Your task to perform on an android device: Clear the shopping cart on bestbuy.com. Search for duracell triple a on bestbuy.com, select the first entry, and add it to the cart. Image 0: 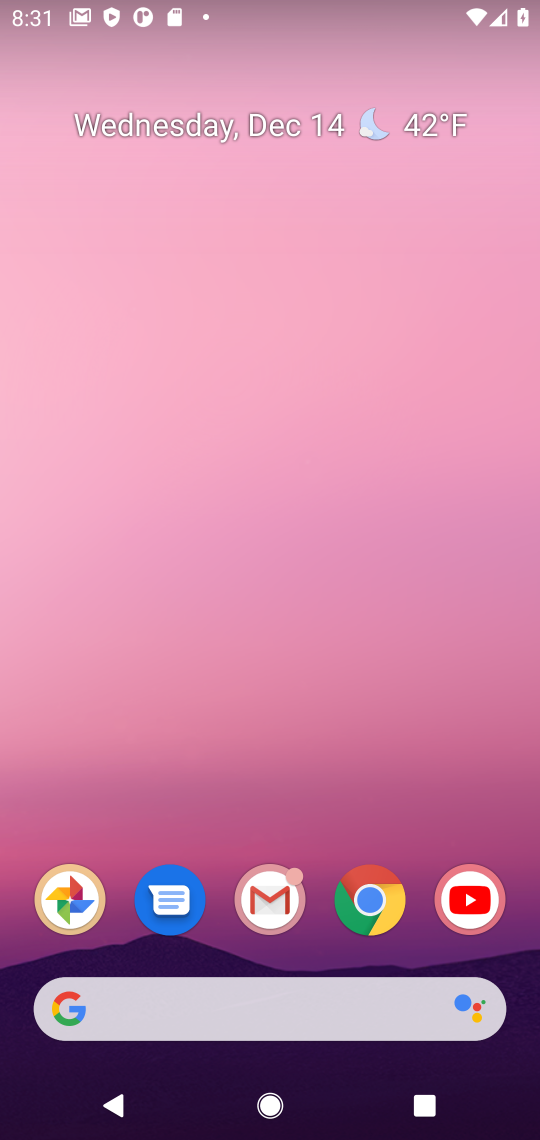
Step 0: click (364, 911)
Your task to perform on an android device: Clear the shopping cart on bestbuy.com. Search for duracell triple a on bestbuy.com, select the first entry, and add it to the cart. Image 1: 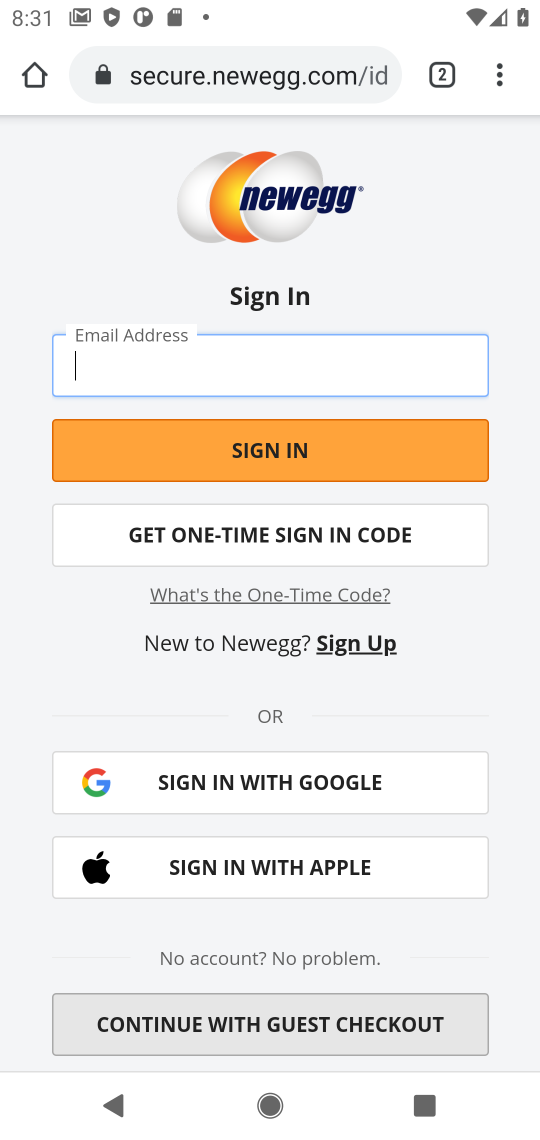
Step 1: click (269, 66)
Your task to perform on an android device: Clear the shopping cart on bestbuy.com. Search for duracell triple a on bestbuy.com, select the first entry, and add it to the cart. Image 2: 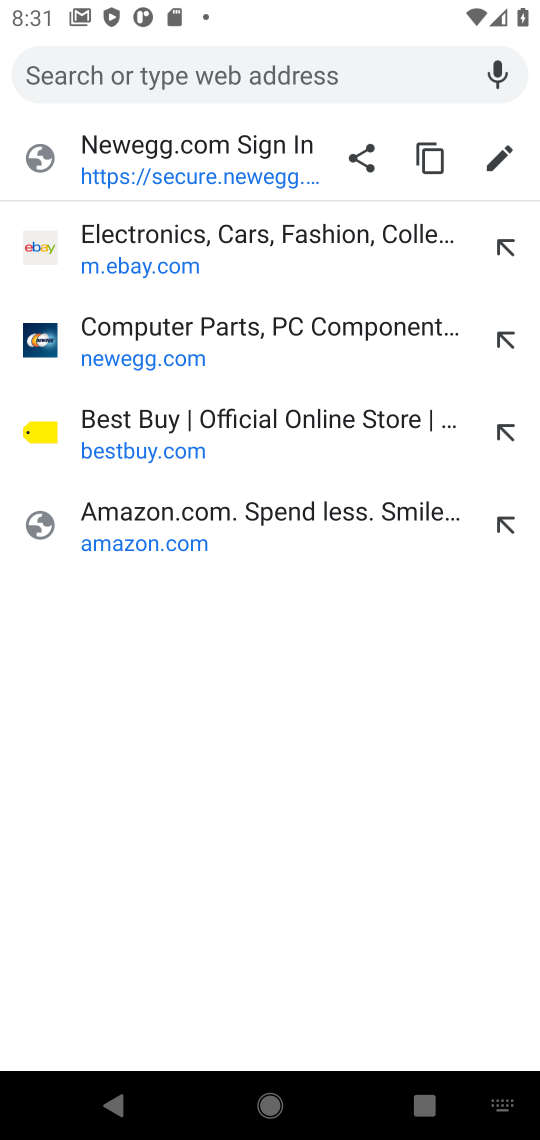
Step 2: click (102, 456)
Your task to perform on an android device: Clear the shopping cart on bestbuy.com. Search for duracell triple a on bestbuy.com, select the first entry, and add it to the cart. Image 3: 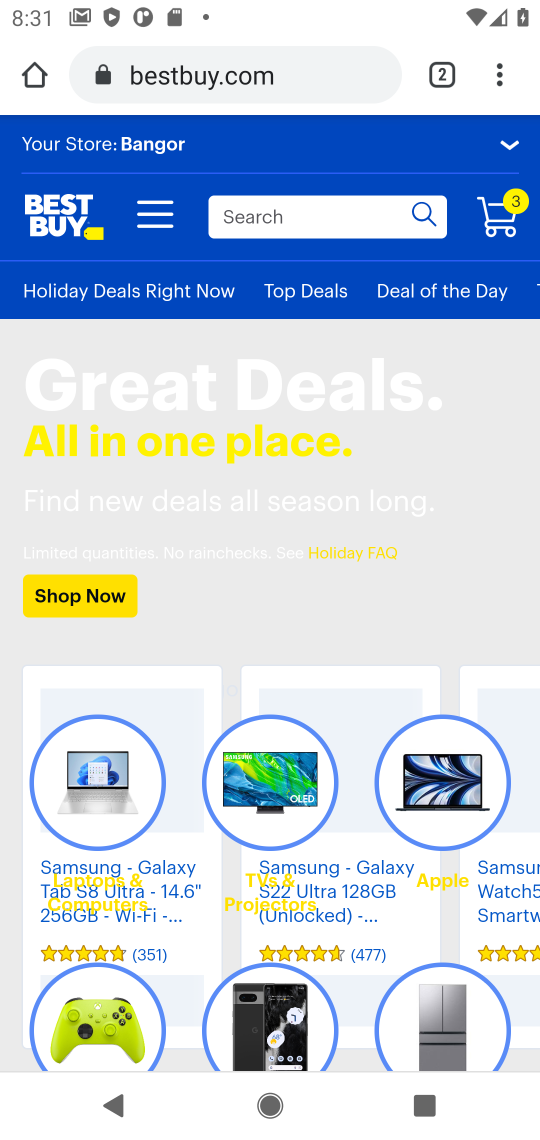
Step 3: click (499, 213)
Your task to perform on an android device: Clear the shopping cart on bestbuy.com. Search for duracell triple a on bestbuy.com, select the first entry, and add it to the cart. Image 4: 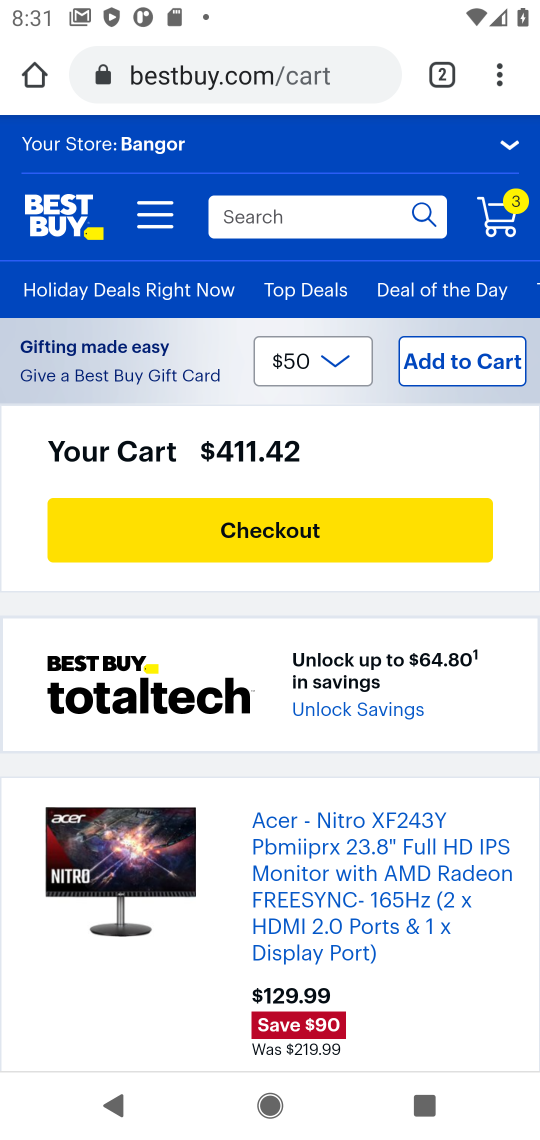
Step 4: drag from (342, 838) to (410, 277)
Your task to perform on an android device: Clear the shopping cart on bestbuy.com. Search for duracell triple a on bestbuy.com, select the first entry, and add it to the cart. Image 5: 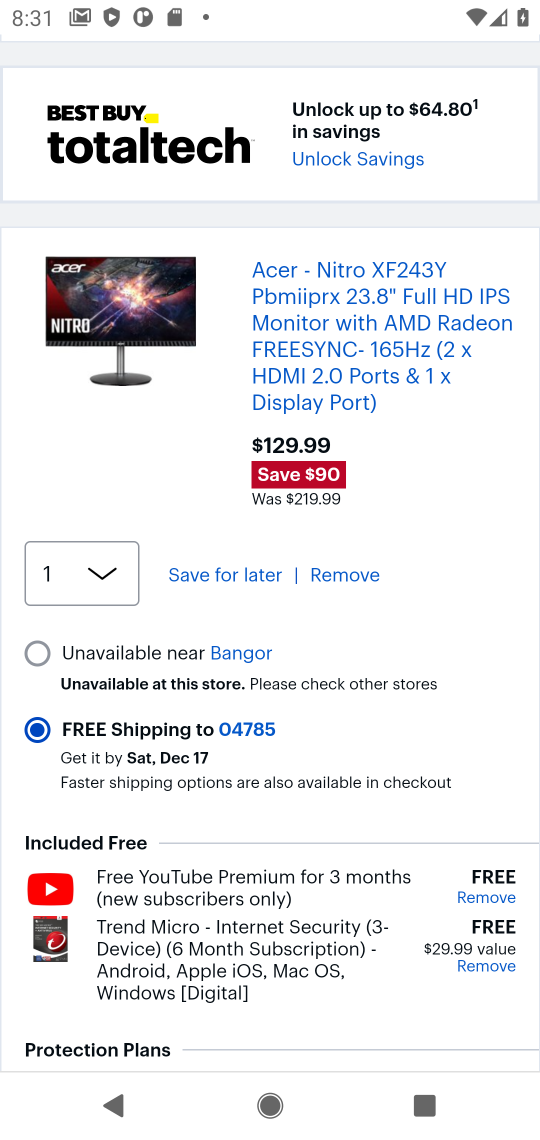
Step 5: drag from (348, 892) to (403, 516)
Your task to perform on an android device: Clear the shopping cart on bestbuy.com. Search for duracell triple a on bestbuy.com, select the first entry, and add it to the cart. Image 6: 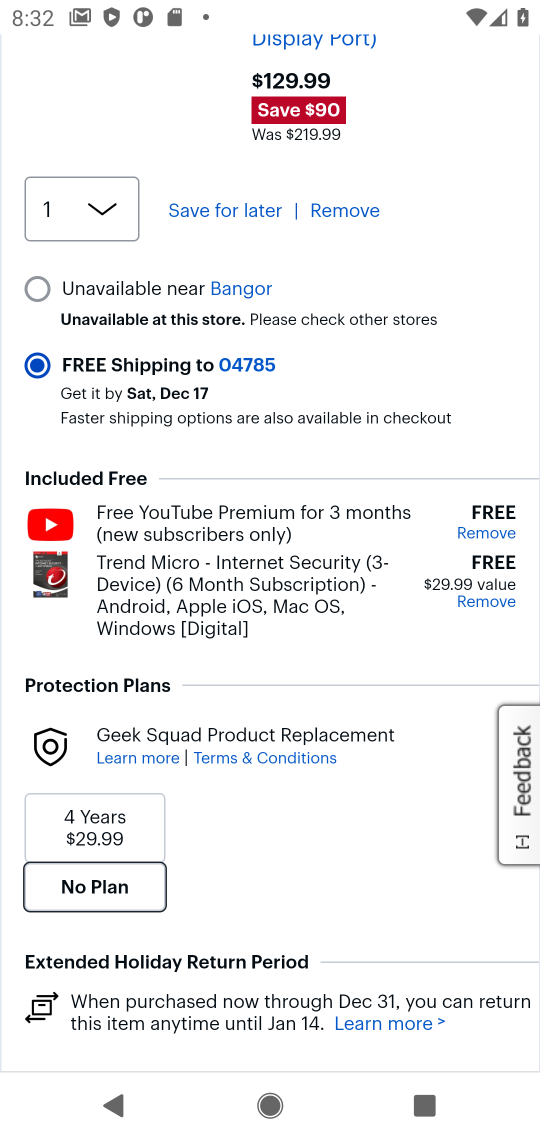
Step 6: drag from (332, 822) to (369, 445)
Your task to perform on an android device: Clear the shopping cart on bestbuy.com. Search for duracell triple a on bestbuy.com, select the first entry, and add it to the cart. Image 7: 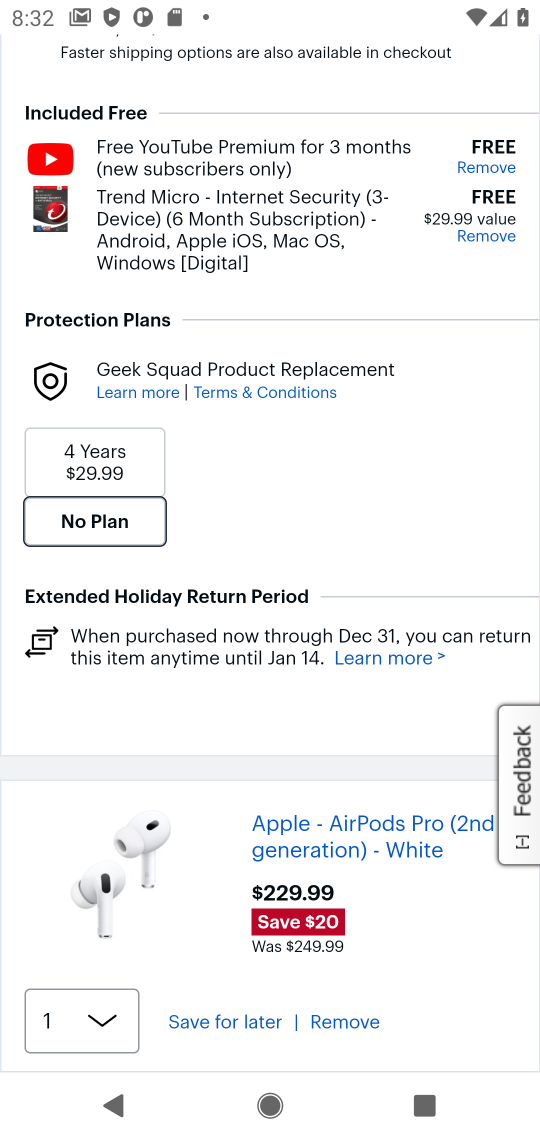
Step 7: click (111, 1023)
Your task to perform on an android device: Clear the shopping cart on bestbuy.com. Search for duracell triple a on bestbuy.com, select the first entry, and add it to the cart. Image 8: 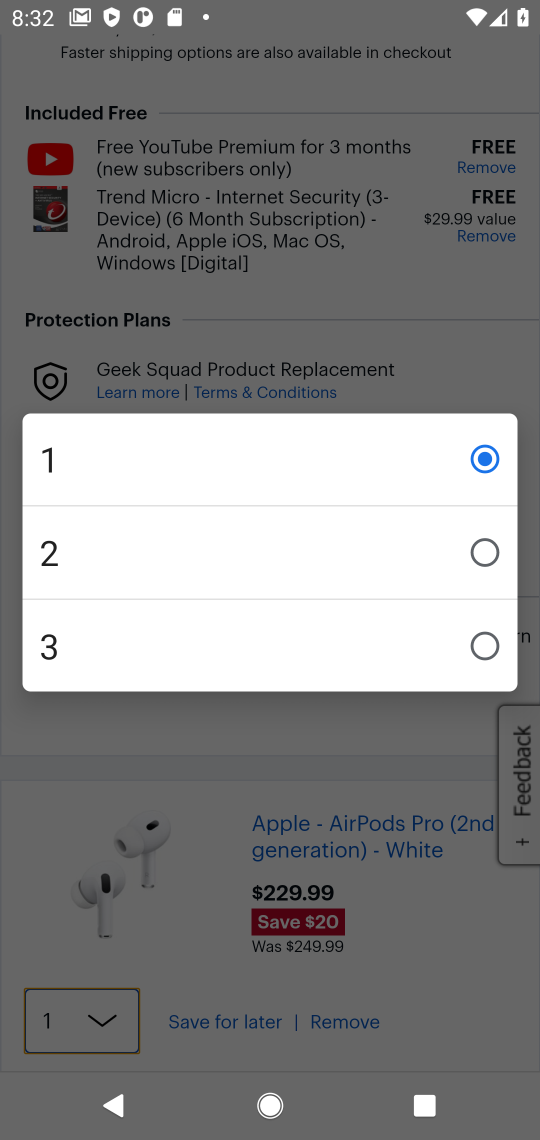
Step 8: click (359, 1025)
Your task to perform on an android device: Clear the shopping cart on bestbuy.com. Search for duracell triple a on bestbuy.com, select the first entry, and add it to the cart. Image 9: 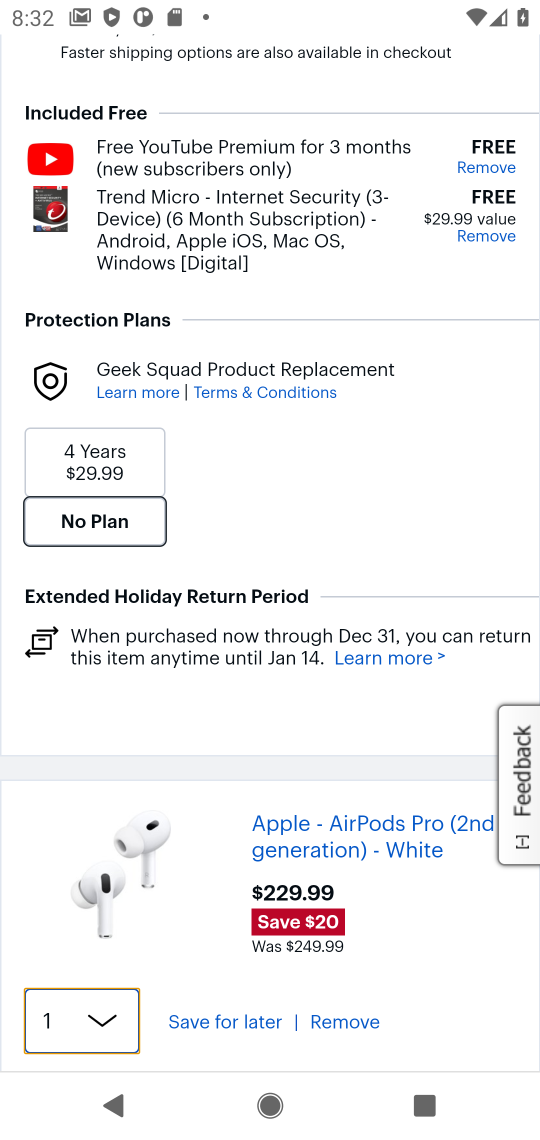
Step 9: click (356, 1028)
Your task to perform on an android device: Clear the shopping cart on bestbuy.com. Search for duracell triple a on bestbuy.com, select the first entry, and add it to the cart. Image 10: 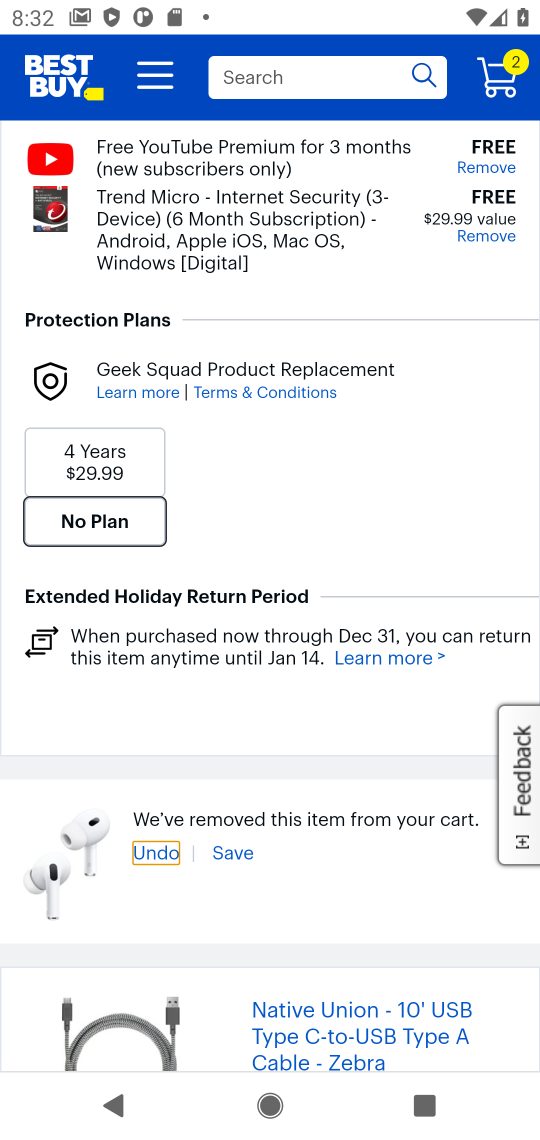
Step 10: drag from (306, 929) to (354, 370)
Your task to perform on an android device: Clear the shopping cart on bestbuy.com. Search for duracell triple a on bestbuy.com, select the first entry, and add it to the cart. Image 11: 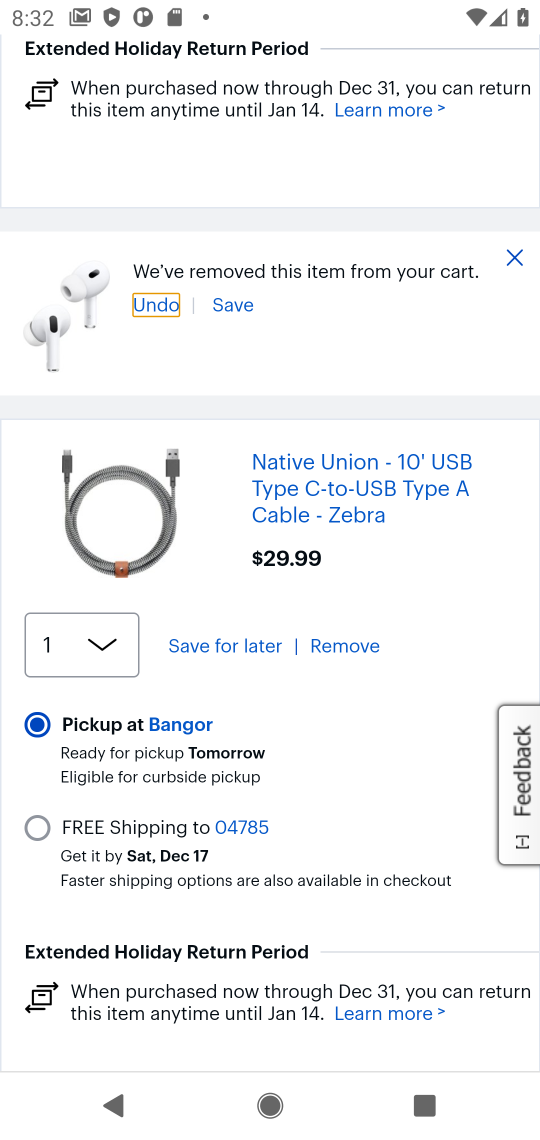
Step 11: click (357, 649)
Your task to perform on an android device: Clear the shopping cart on bestbuy.com. Search for duracell triple a on bestbuy.com, select the first entry, and add it to the cart. Image 12: 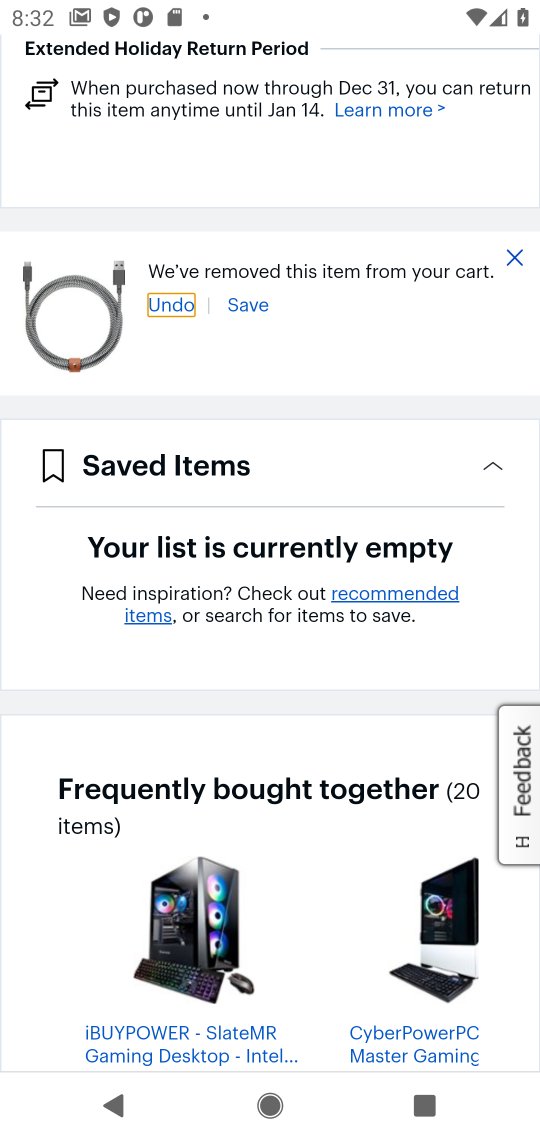
Step 12: drag from (408, 315) to (362, 1011)
Your task to perform on an android device: Clear the shopping cart on bestbuy.com. Search for duracell triple a on bestbuy.com, select the first entry, and add it to the cart. Image 13: 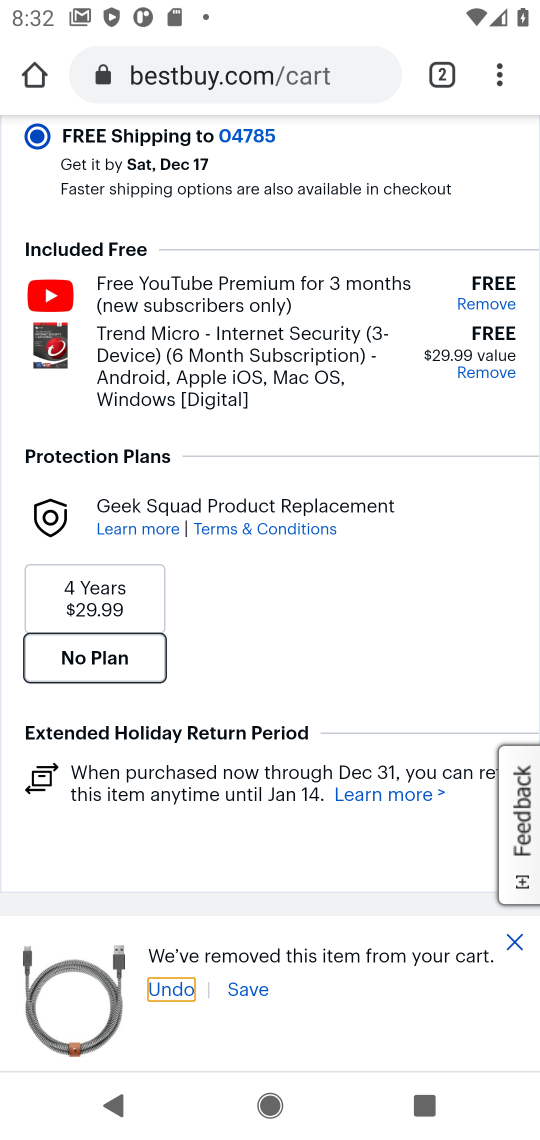
Step 13: drag from (332, 260) to (386, 925)
Your task to perform on an android device: Clear the shopping cart on bestbuy.com. Search for duracell triple a on bestbuy.com, select the first entry, and add it to the cart. Image 14: 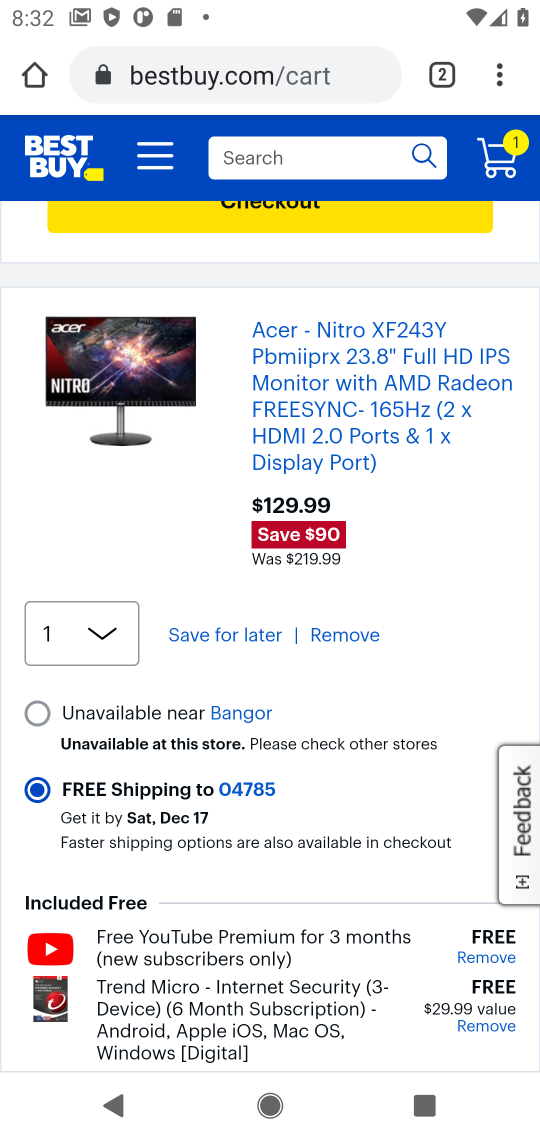
Step 14: click (339, 627)
Your task to perform on an android device: Clear the shopping cart on bestbuy.com. Search for duracell triple a on bestbuy.com, select the first entry, and add it to the cart. Image 15: 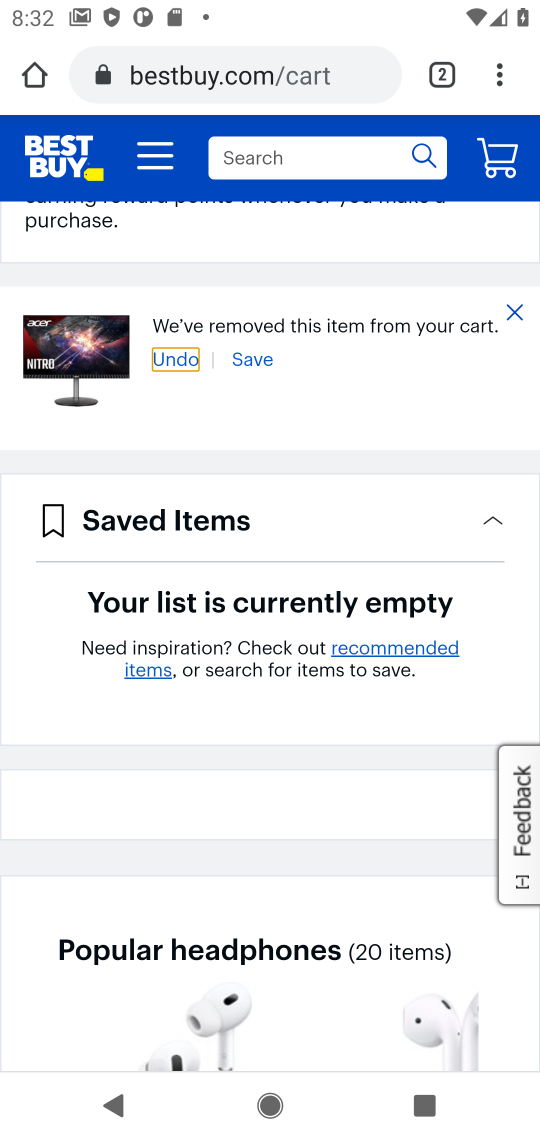
Step 15: click (326, 151)
Your task to perform on an android device: Clear the shopping cart on bestbuy.com. Search for duracell triple a on bestbuy.com, select the first entry, and add it to the cart. Image 16: 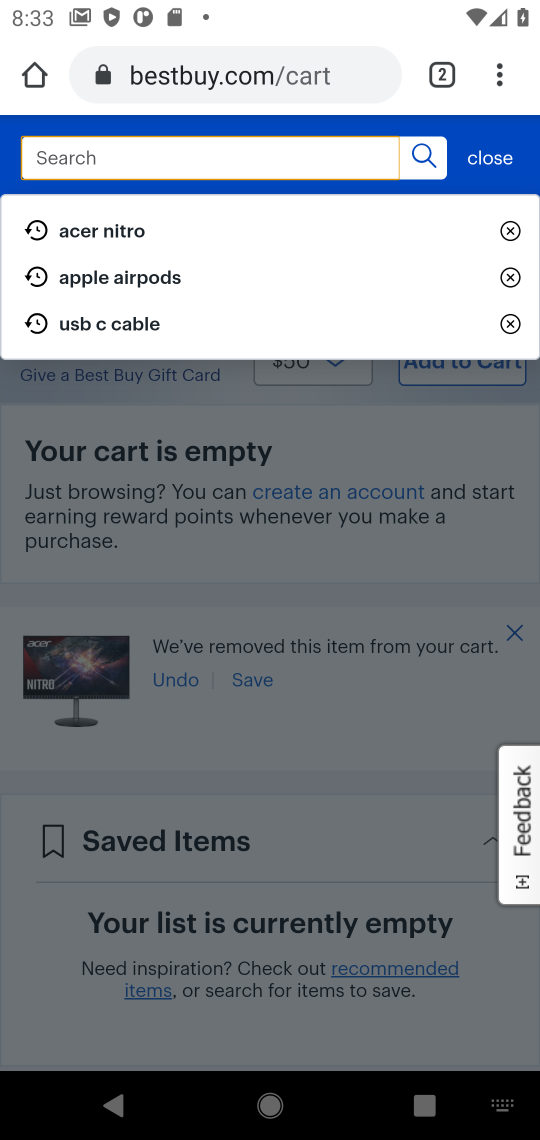
Step 16: type "duracell triple a"
Your task to perform on an android device: Clear the shopping cart on bestbuy.com. Search for duracell triple a on bestbuy.com, select the first entry, and add it to the cart. Image 17: 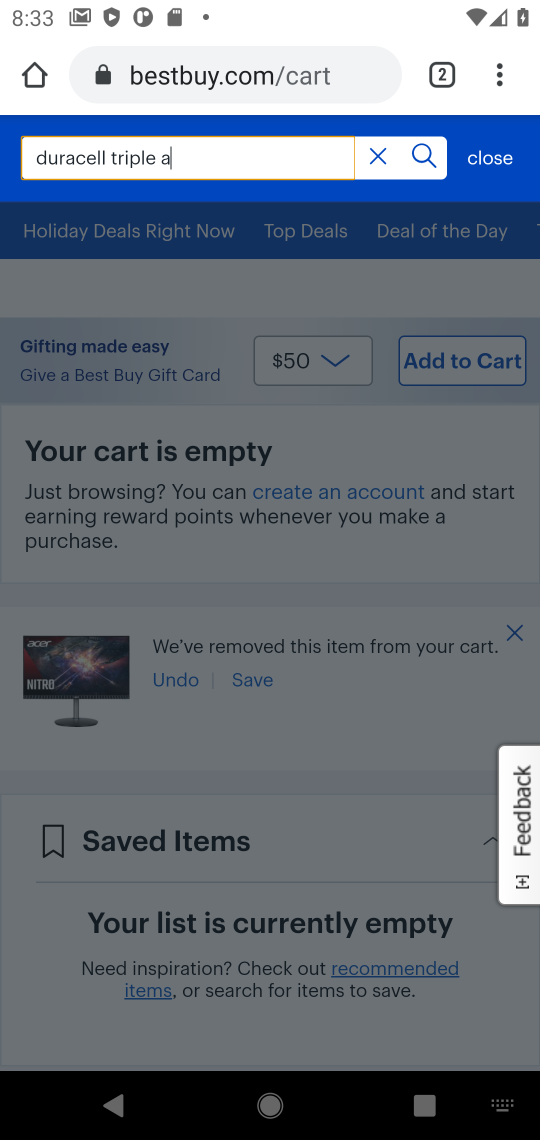
Step 17: click (423, 157)
Your task to perform on an android device: Clear the shopping cart on bestbuy.com. Search for duracell triple a on bestbuy.com, select the first entry, and add it to the cart. Image 18: 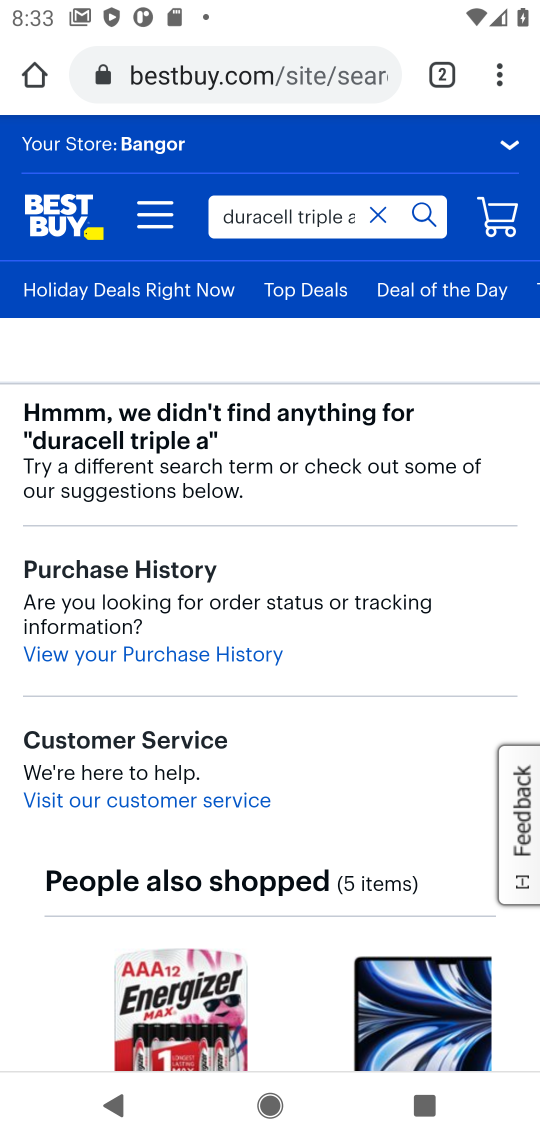
Step 18: task complete